Your task to perform on an android device: manage bookmarks in the chrome app Image 0: 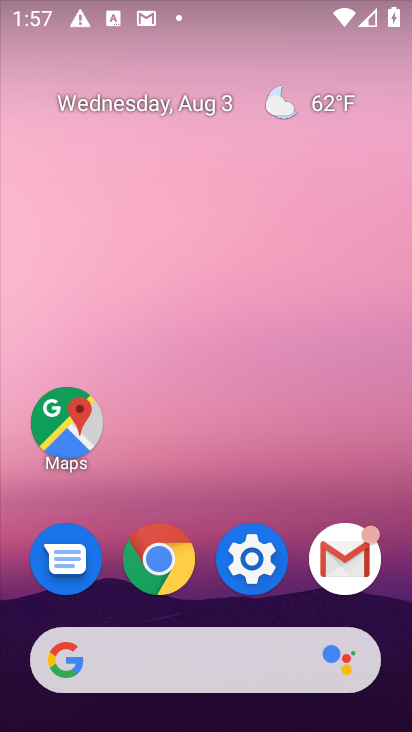
Step 0: drag from (283, 628) to (272, 120)
Your task to perform on an android device: manage bookmarks in the chrome app Image 1: 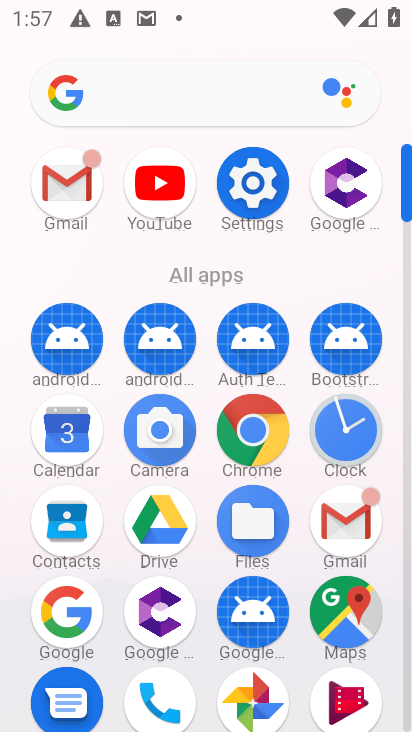
Step 1: click (245, 448)
Your task to perform on an android device: manage bookmarks in the chrome app Image 2: 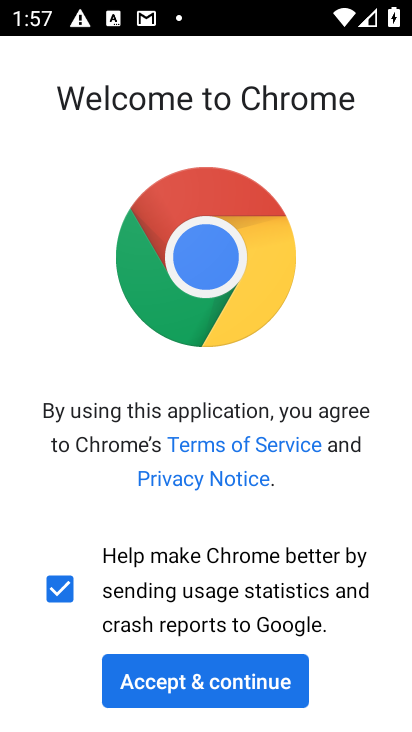
Step 2: click (234, 676)
Your task to perform on an android device: manage bookmarks in the chrome app Image 3: 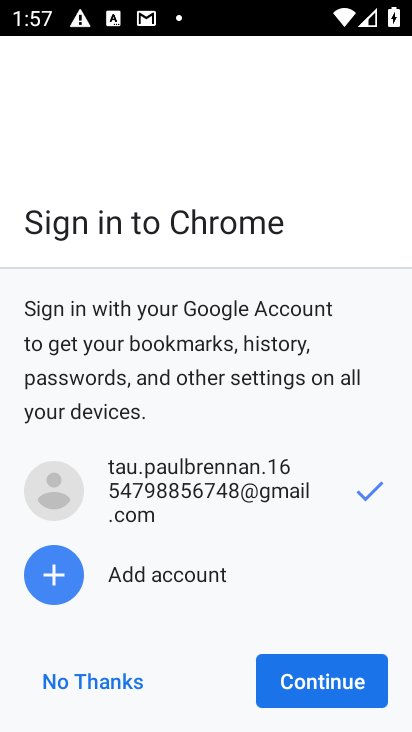
Step 3: click (90, 673)
Your task to perform on an android device: manage bookmarks in the chrome app Image 4: 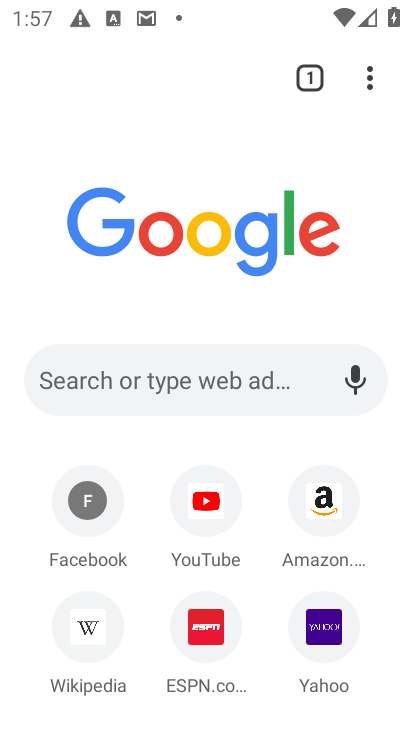
Step 4: click (365, 88)
Your task to perform on an android device: manage bookmarks in the chrome app Image 5: 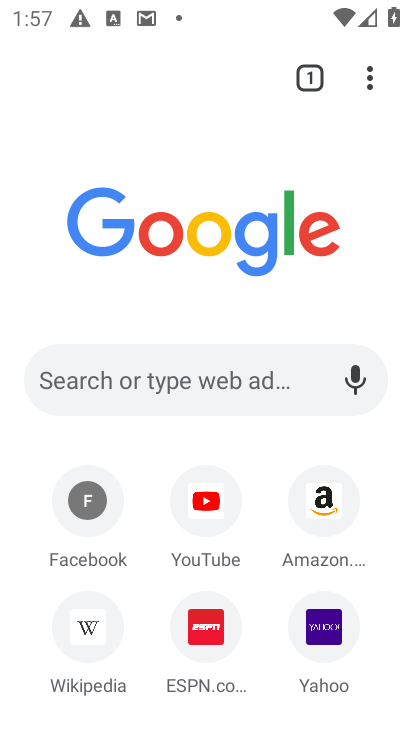
Step 5: click (366, 70)
Your task to perform on an android device: manage bookmarks in the chrome app Image 6: 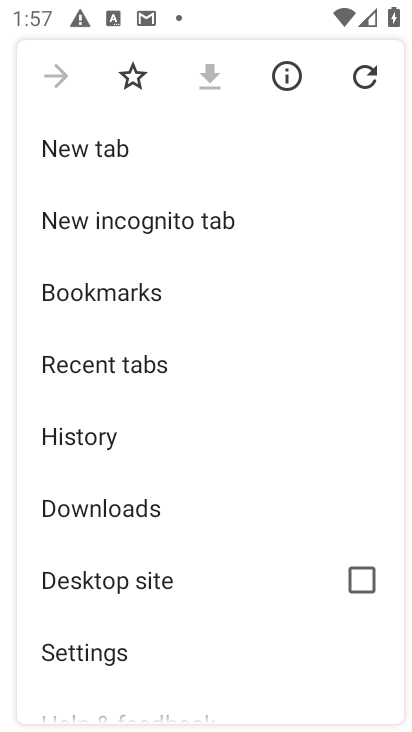
Step 6: drag from (136, 625) to (198, 332)
Your task to perform on an android device: manage bookmarks in the chrome app Image 7: 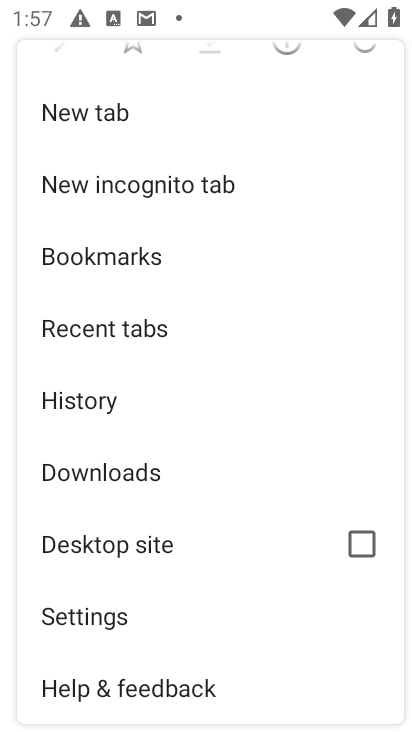
Step 7: click (104, 253)
Your task to perform on an android device: manage bookmarks in the chrome app Image 8: 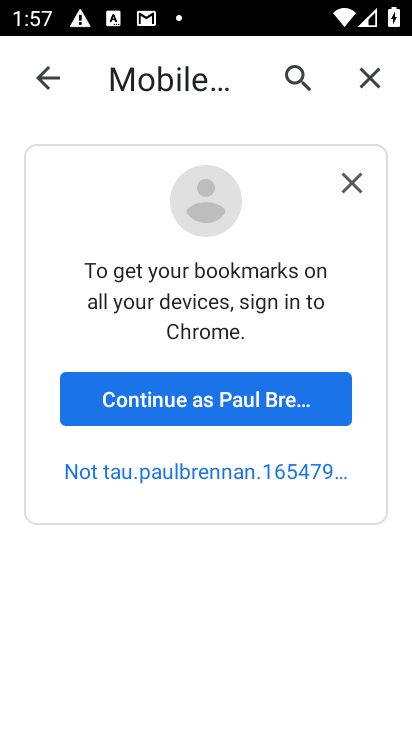
Step 8: click (223, 410)
Your task to perform on an android device: manage bookmarks in the chrome app Image 9: 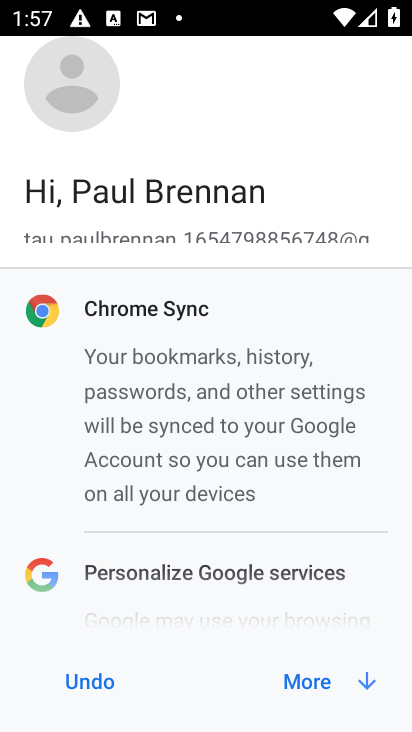
Step 9: click (365, 683)
Your task to perform on an android device: manage bookmarks in the chrome app Image 10: 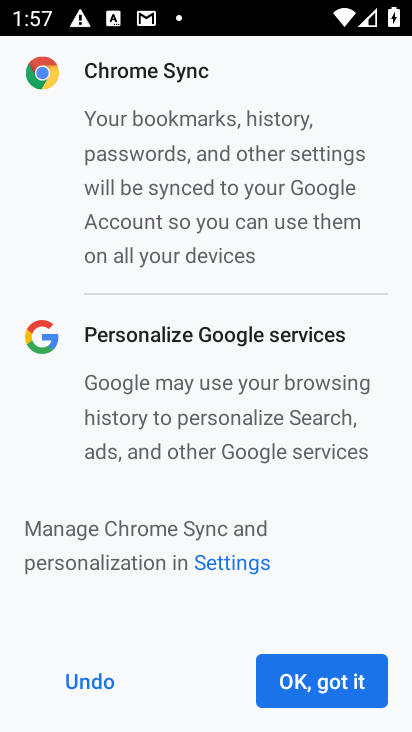
Step 10: click (365, 682)
Your task to perform on an android device: manage bookmarks in the chrome app Image 11: 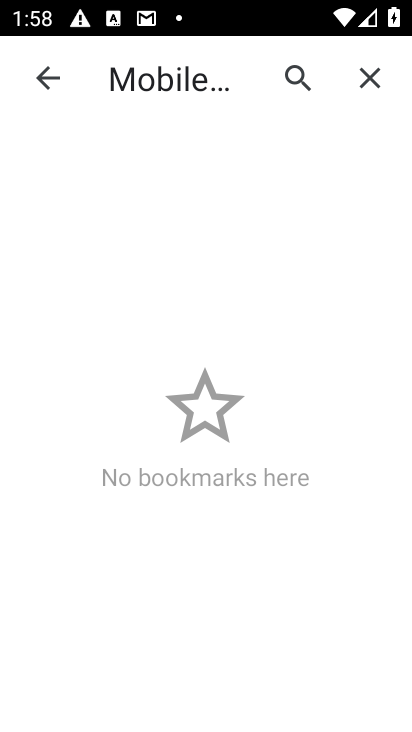
Step 11: task complete